Your task to perform on an android device: Open Google Chrome Image 0: 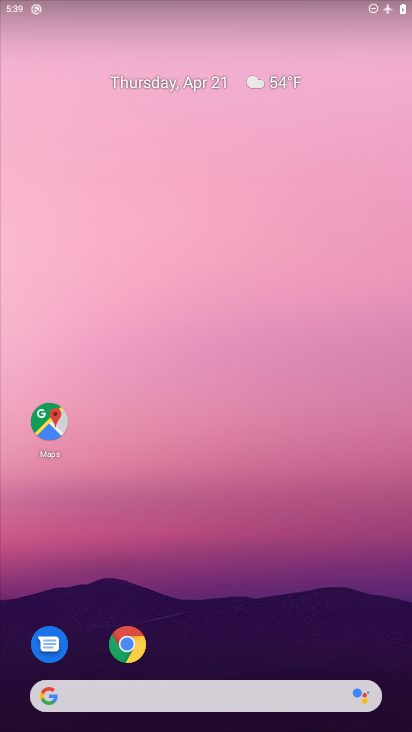
Step 0: click (133, 647)
Your task to perform on an android device: Open Google Chrome Image 1: 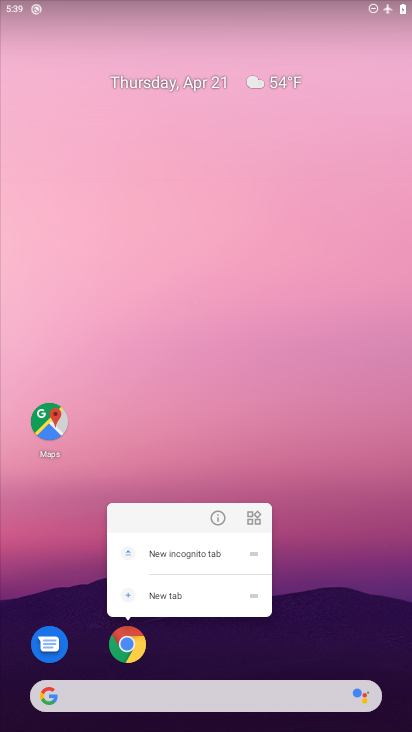
Step 1: click (133, 647)
Your task to perform on an android device: Open Google Chrome Image 2: 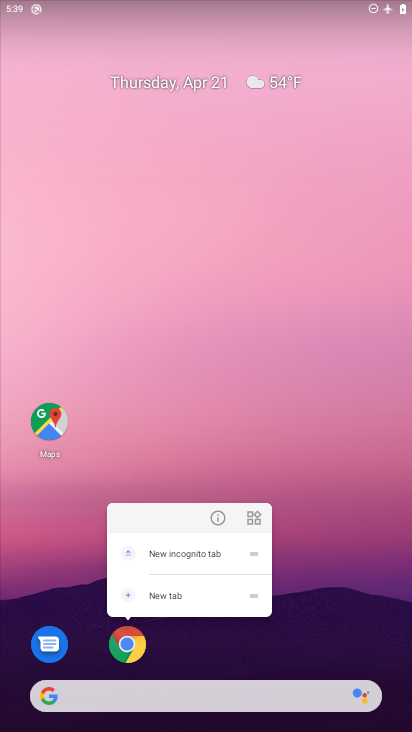
Step 2: click (133, 647)
Your task to perform on an android device: Open Google Chrome Image 3: 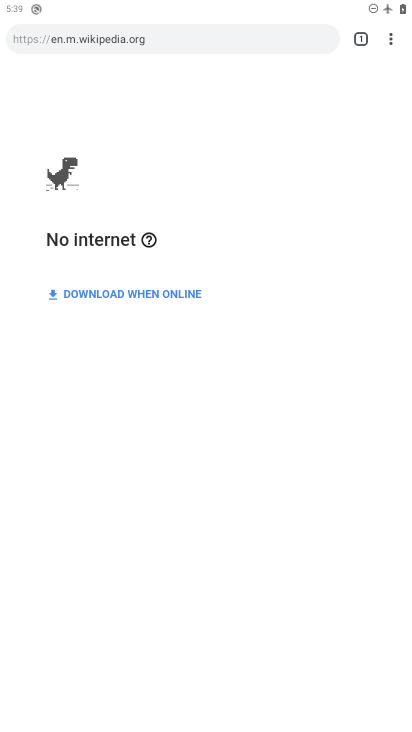
Step 3: task complete